Your task to perform on an android device: Open Google Image 0: 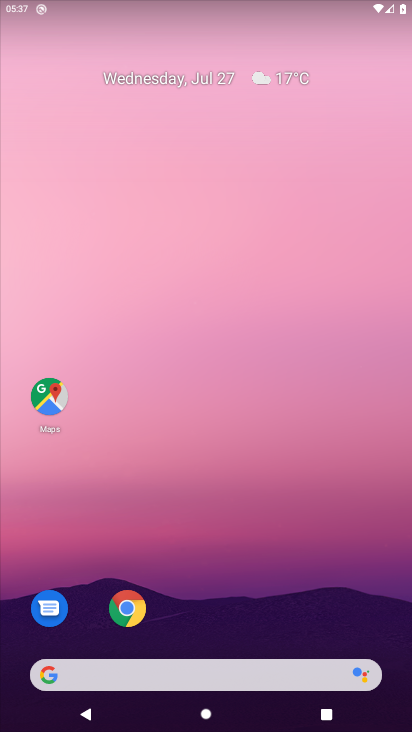
Step 0: press home button
Your task to perform on an android device: Open Google Image 1: 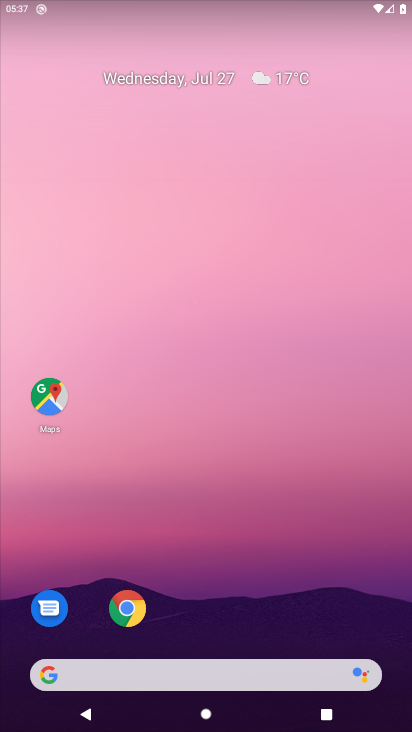
Step 1: click (48, 670)
Your task to perform on an android device: Open Google Image 2: 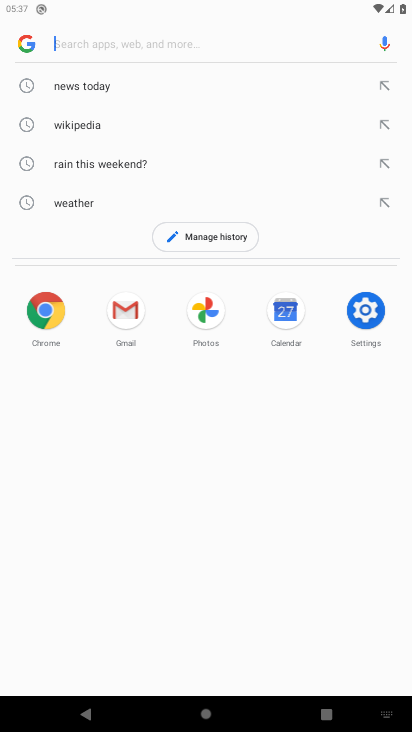
Step 2: task complete